Your task to perform on an android device: see tabs open on other devices in the chrome app Image 0: 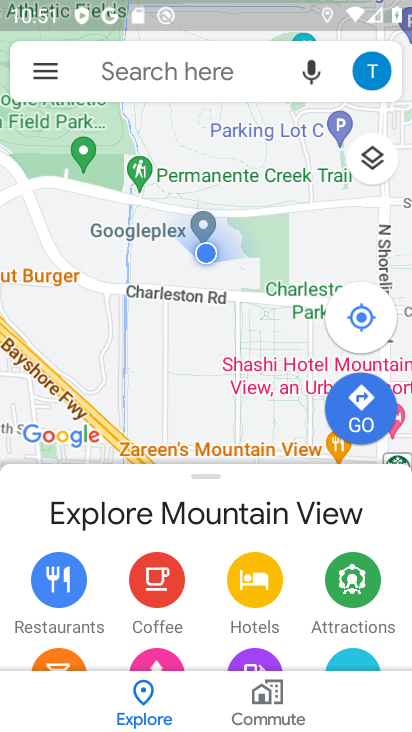
Step 0: press home button
Your task to perform on an android device: see tabs open on other devices in the chrome app Image 1: 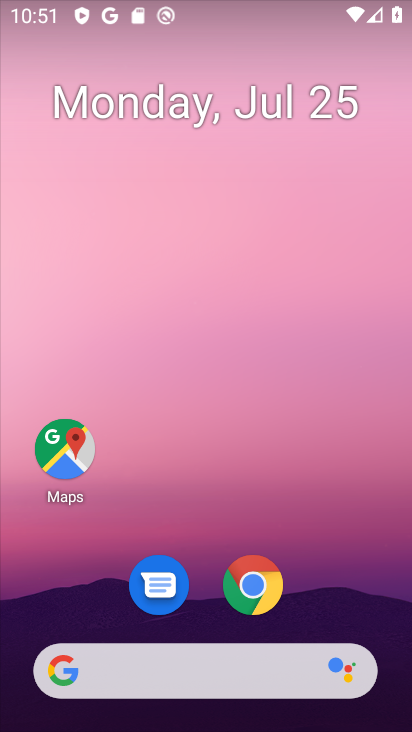
Step 1: click (244, 593)
Your task to perform on an android device: see tabs open on other devices in the chrome app Image 2: 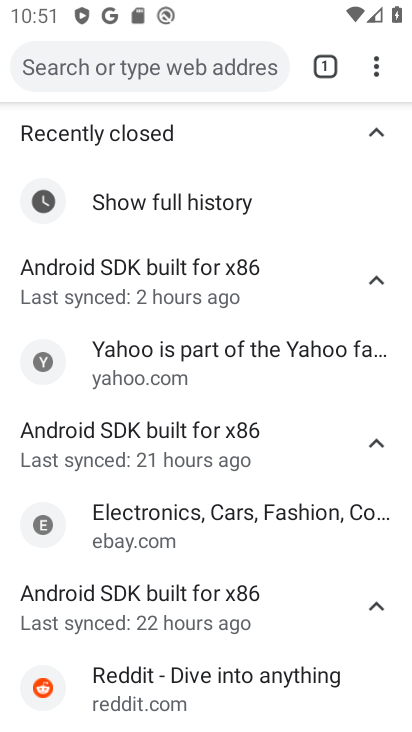
Step 2: click (373, 68)
Your task to perform on an android device: see tabs open on other devices in the chrome app Image 3: 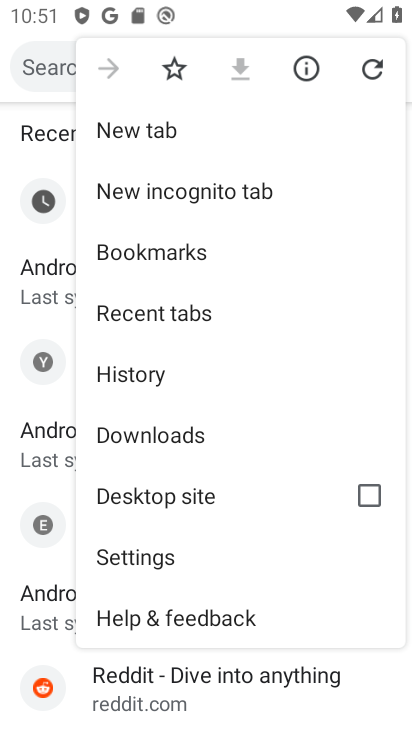
Step 3: click (258, 121)
Your task to perform on an android device: see tabs open on other devices in the chrome app Image 4: 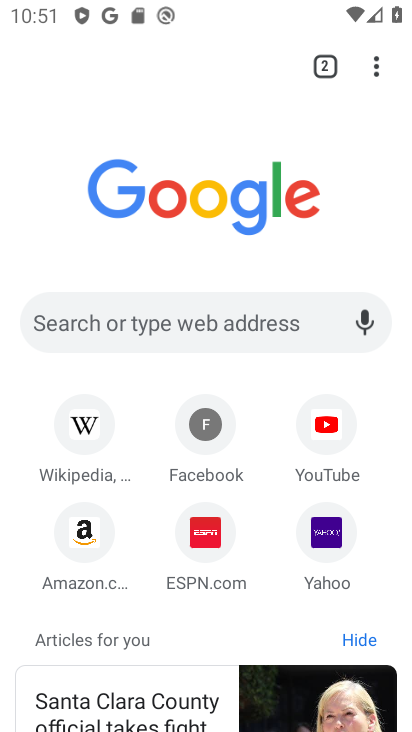
Step 4: task complete